Your task to perform on an android device: Play the last video I watched on Youtube Image 0: 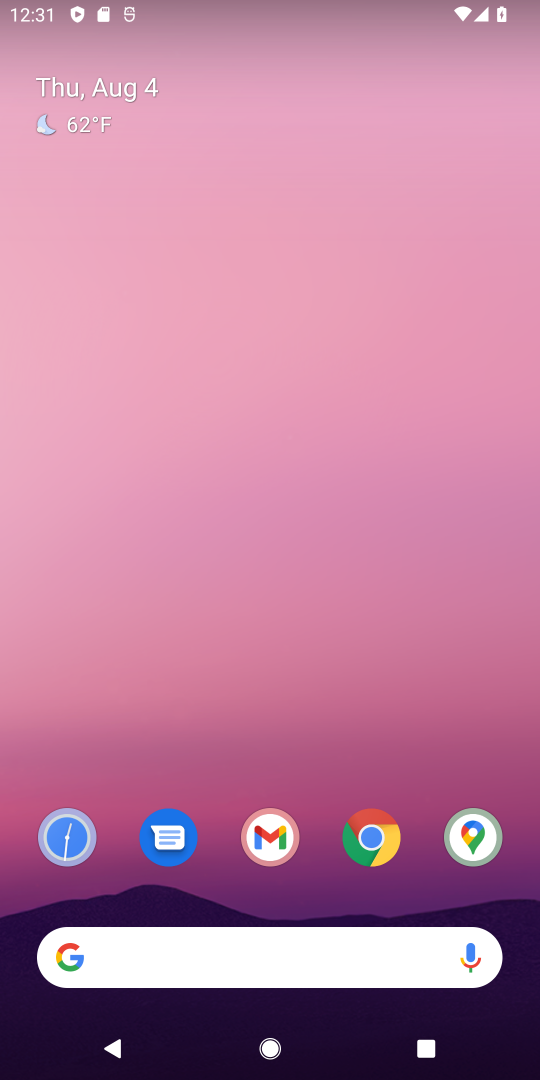
Step 0: drag from (303, 751) to (302, 108)
Your task to perform on an android device: Play the last video I watched on Youtube Image 1: 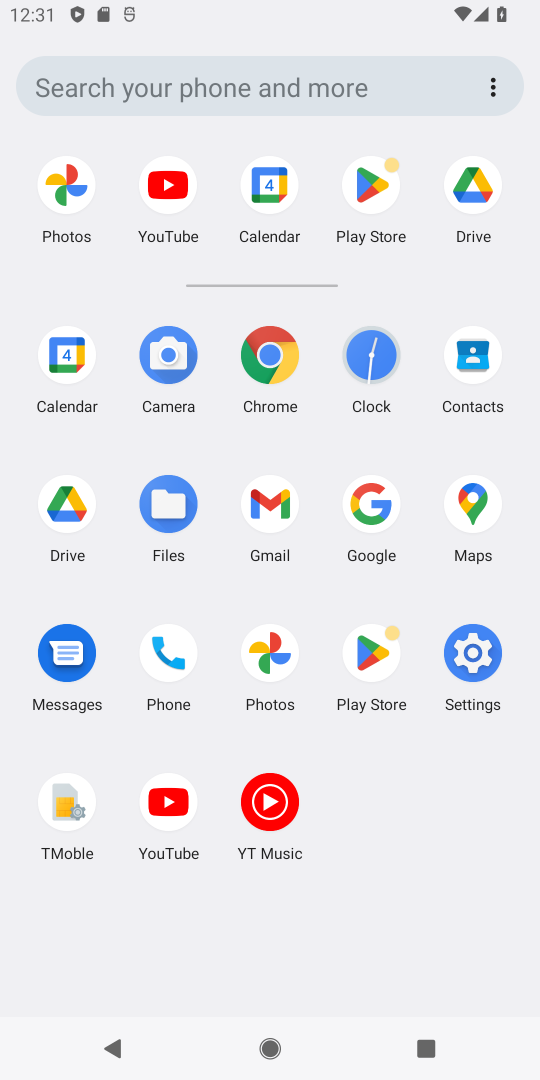
Step 1: click (173, 782)
Your task to perform on an android device: Play the last video I watched on Youtube Image 2: 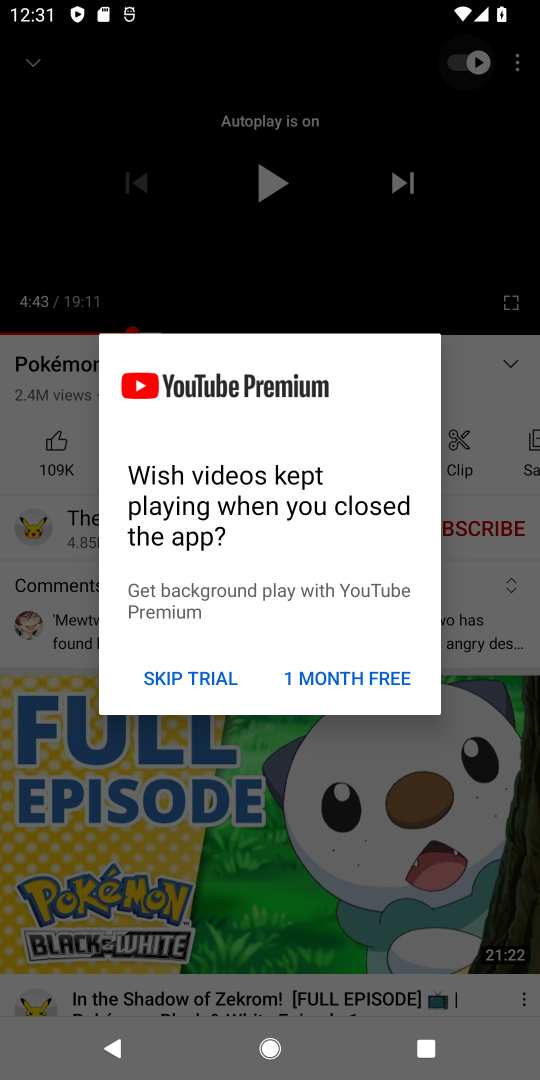
Step 2: click (206, 680)
Your task to perform on an android device: Play the last video I watched on Youtube Image 3: 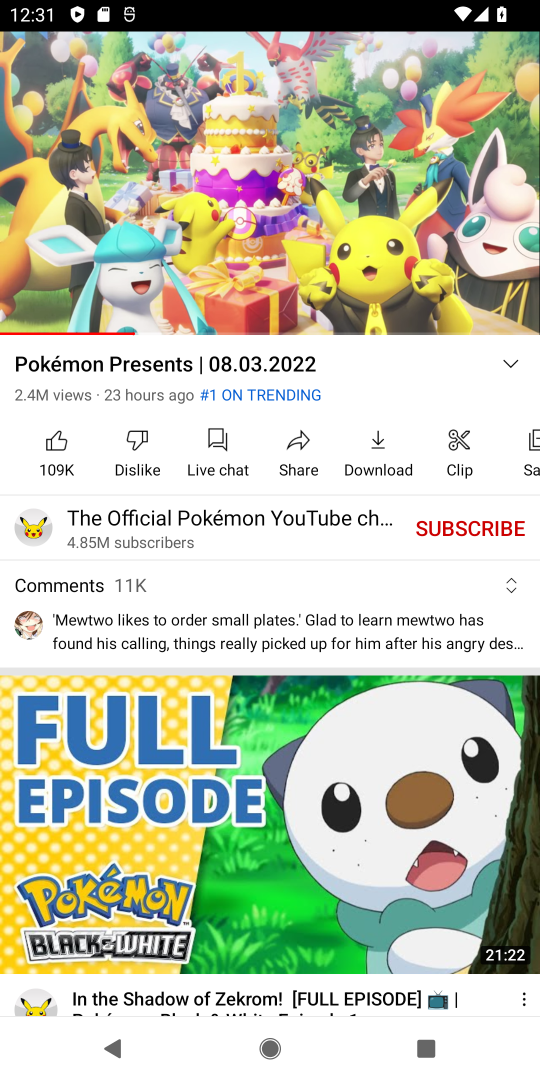
Step 3: click (31, 66)
Your task to perform on an android device: Play the last video I watched on Youtube Image 4: 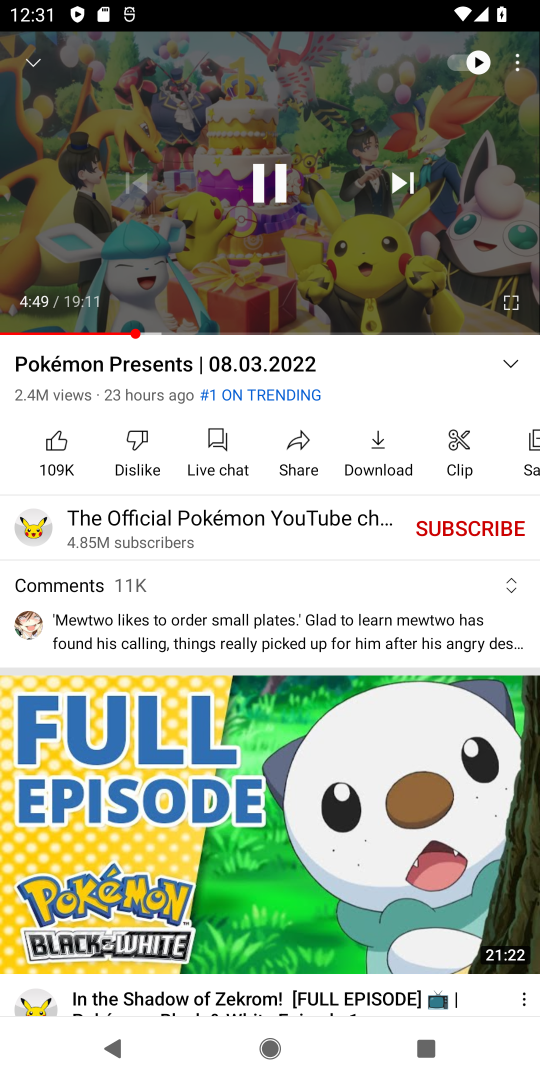
Step 4: click (37, 62)
Your task to perform on an android device: Play the last video I watched on Youtube Image 5: 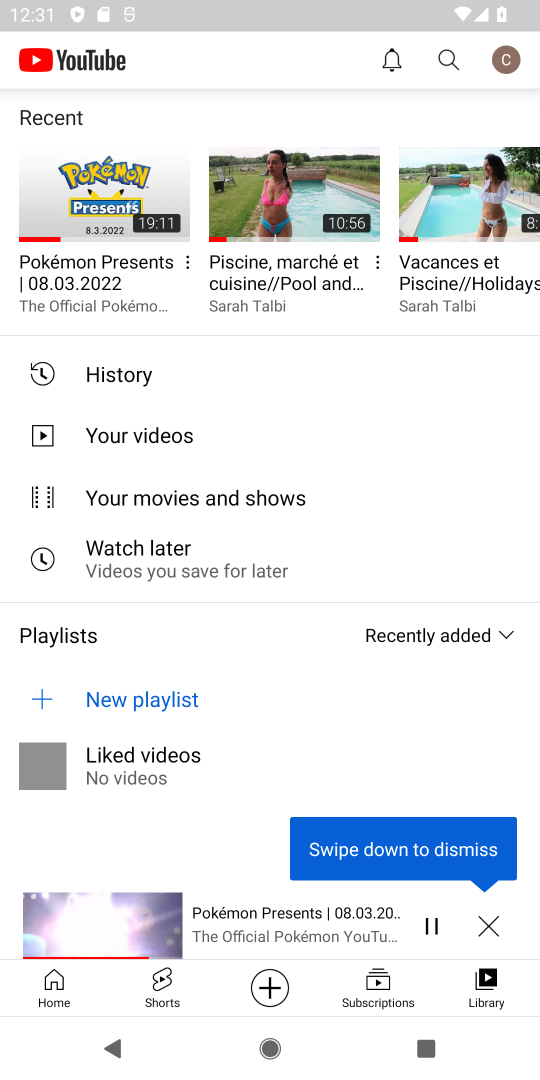
Step 5: click (94, 190)
Your task to perform on an android device: Play the last video I watched on Youtube Image 6: 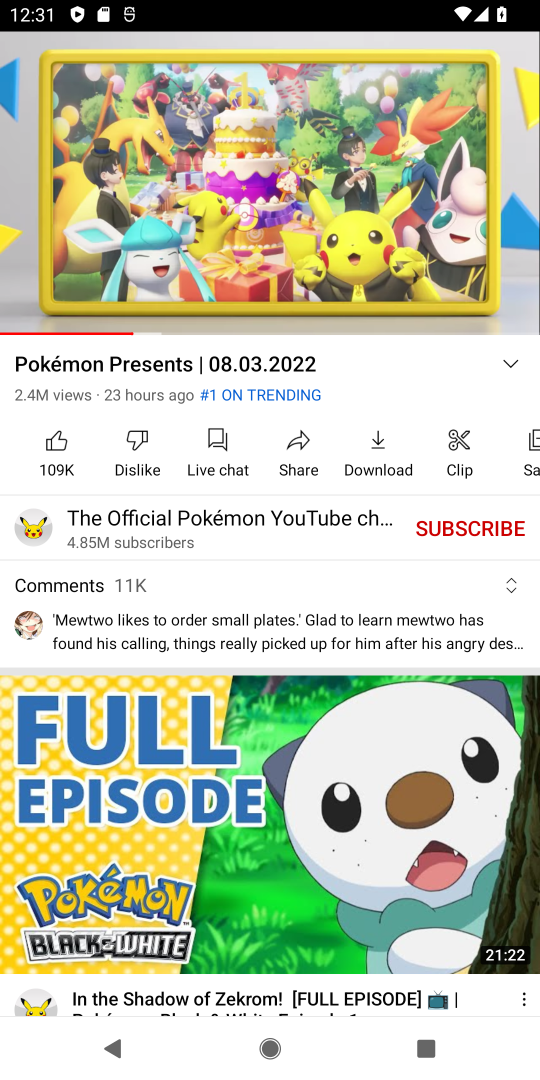
Step 6: task complete